Your task to perform on an android device: open app "eBay: The shopping marketplace" (install if not already installed) and go to login screen Image 0: 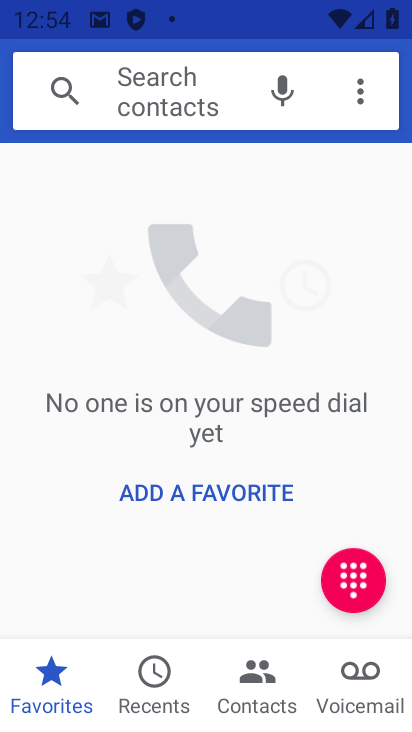
Step 0: press back button
Your task to perform on an android device: open app "eBay: The shopping marketplace" (install if not already installed) and go to login screen Image 1: 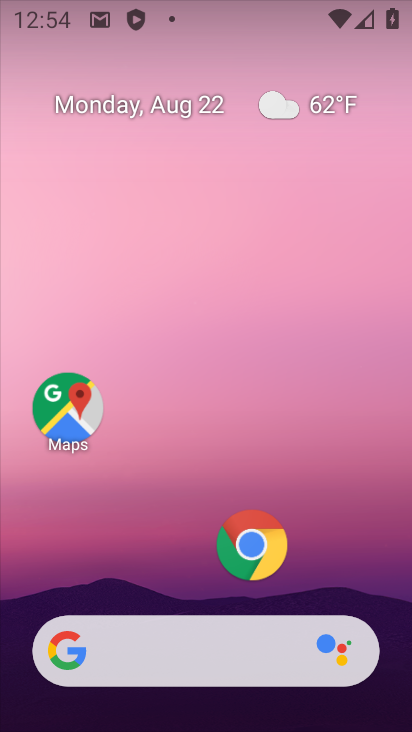
Step 1: drag from (166, 558) to (279, 8)
Your task to perform on an android device: open app "eBay: The shopping marketplace" (install if not already installed) and go to login screen Image 2: 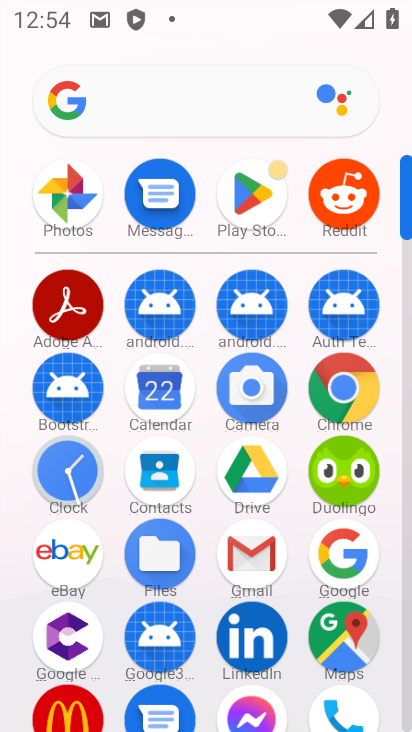
Step 2: click (255, 192)
Your task to perform on an android device: open app "eBay: The shopping marketplace" (install if not already installed) and go to login screen Image 3: 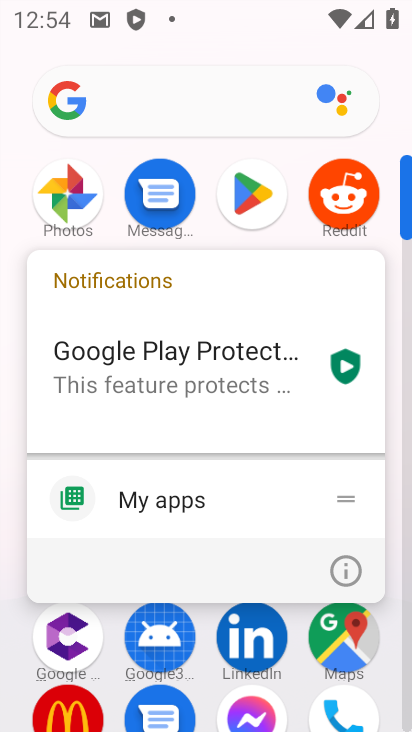
Step 3: click (255, 192)
Your task to perform on an android device: open app "eBay: The shopping marketplace" (install if not already installed) and go to login screen Image 4: 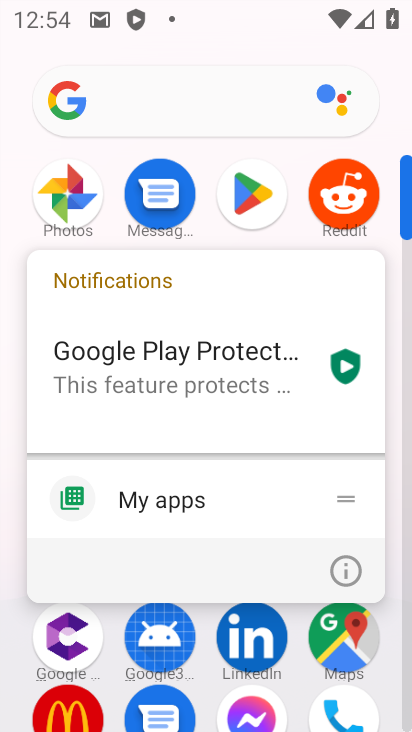
Step 4: click (249, 214)
Your task to perform on an android device: open app "eBay: The shopping marketplace" (install if not already installed) and go to login screen Image 5: 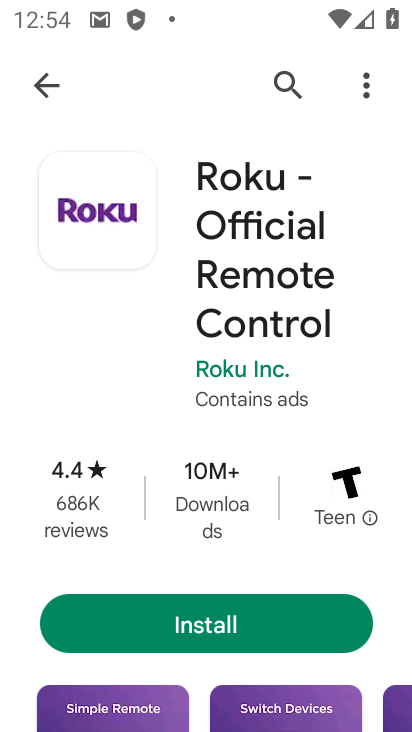
Step 5: click (286, 77)
Your task to perform on an android device: open app "eBay: The shopping marketplace" (install if not already installed) and go to login screen Image 6: 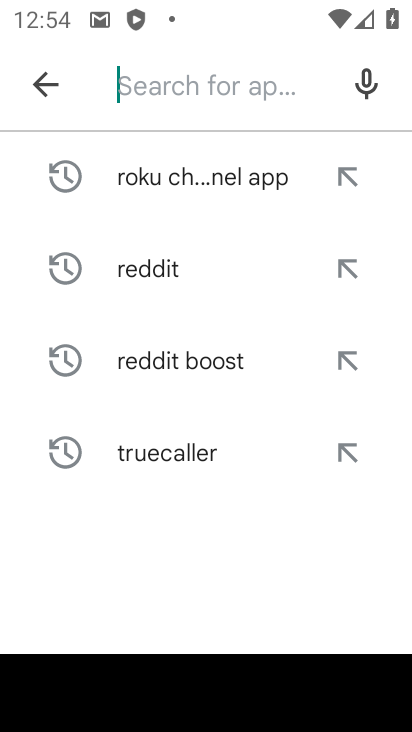
Step 6: click (129, 97)
Your task to perform on an android device: open app "eBay: The shopping marketplace" (install if not already installed) and go to login screen Image 7: 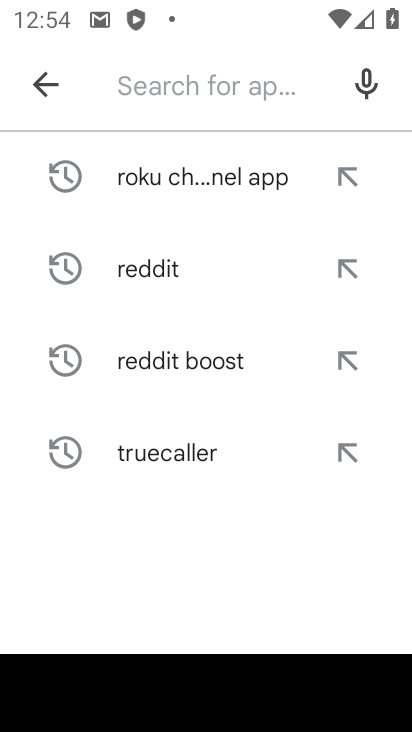
Step 7: type "eBay"
Your task to perform on an android device: open app "eBay: The shopping marketplace" (install if not already installed) and go to login screen Image 8: 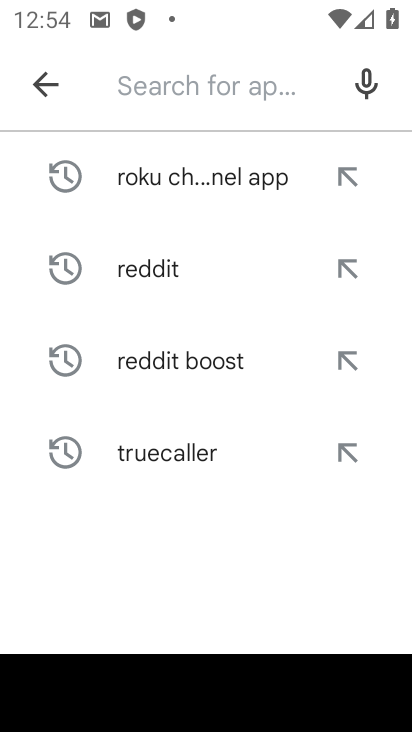
Step 8: click (262, 586)
Your task to perform on an android device: open app "eBay: The shopping marketplace" (install if not already installed) and go to login screen Image 9: 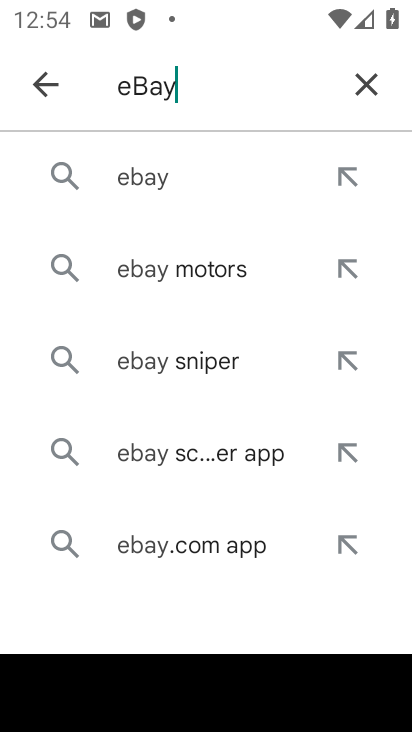
Step 9: click (160, 171)
Your task to perform on an android device: open app "eBay: The shopping marketplace" (install if not already installed) and go to login screen Image 10: 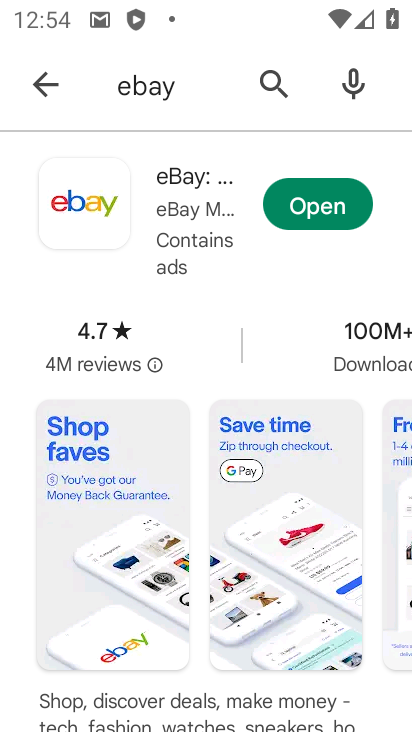
Step 10: click (308, 204)
Your task to perform on an android device: open app "eBay: The shopping marketplace" (install if not already installed) and go to login screen Image 11: 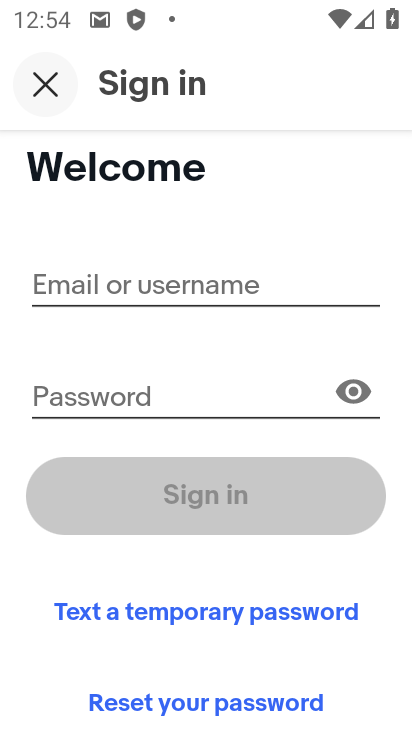
Step 11: task complete